Your task to perform on an android device: open app "Pinterest" (install if not already installed) Image 0: 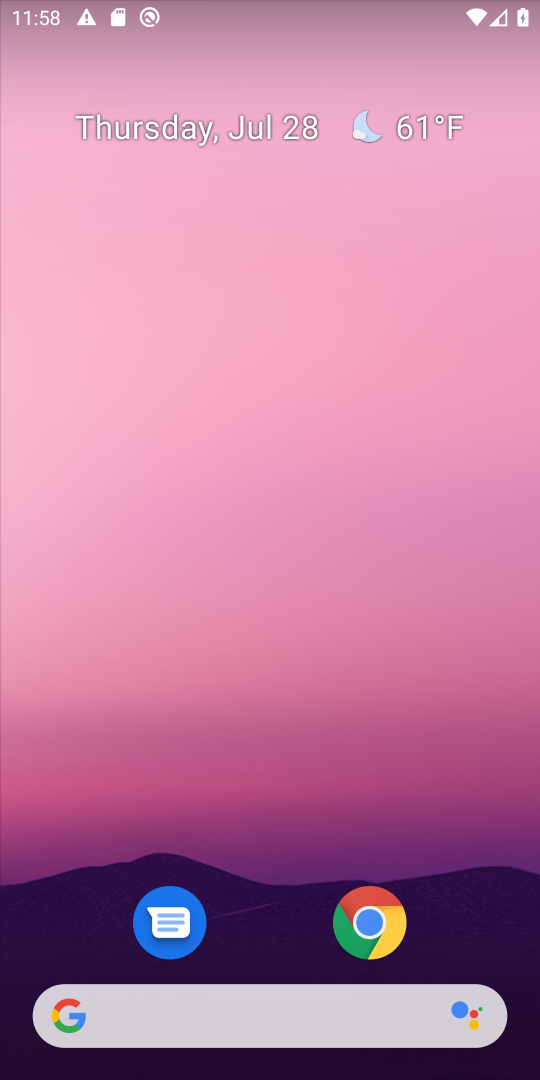
Step 0: drag from (299, 690) to (321, 105)
Your task to perform on an android device: open app "Pinterest" (install if not already installed) Image 1: 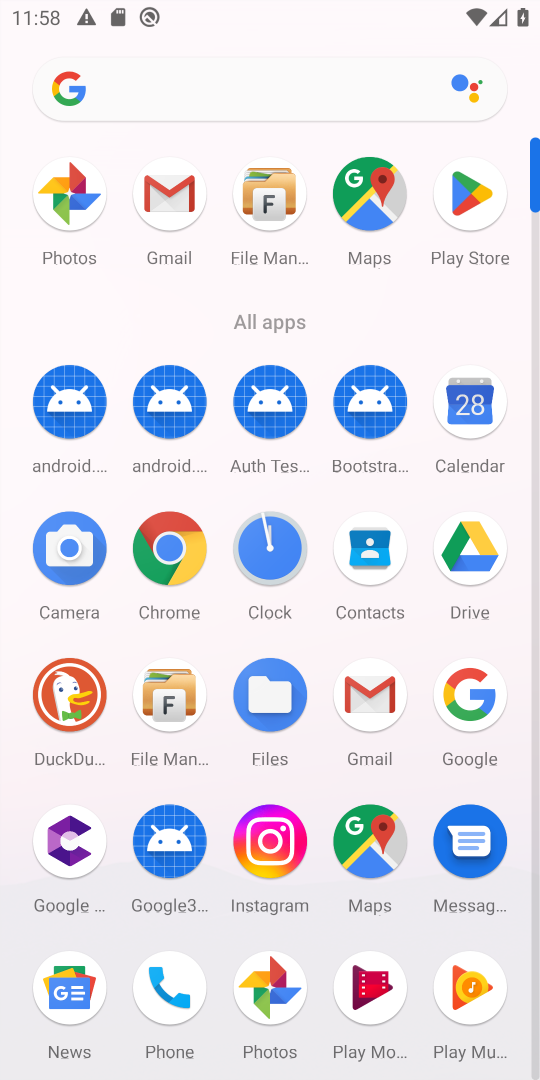
Step 1: click (471, 194)
Your task to perform on an android device: open app "Pinterest" (install if not already installed) Image 2: 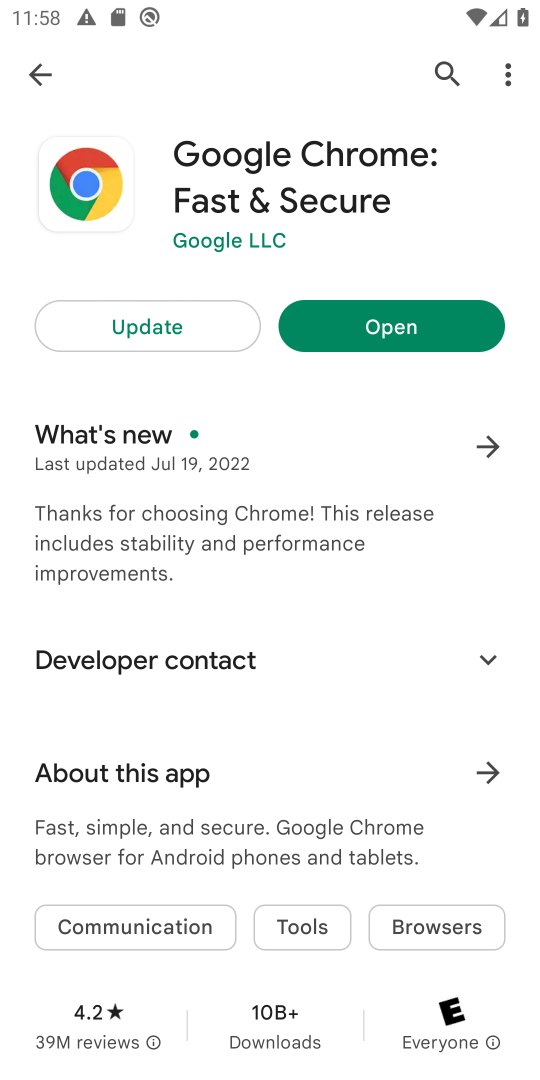
Step 2: click (422, 66)
Your task to perform on an android device: open app "Pinterest" (install if not already installed) Image 3: 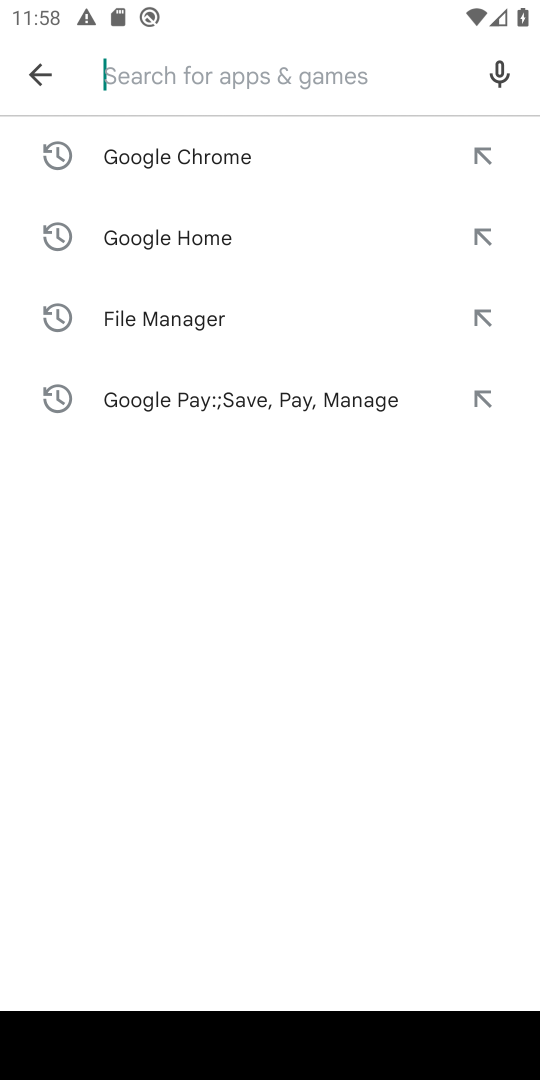
Step 3: type "Pinterest"
Your task to perform on an android device: open app "Pinterest" (install if not already installed) Image 4: 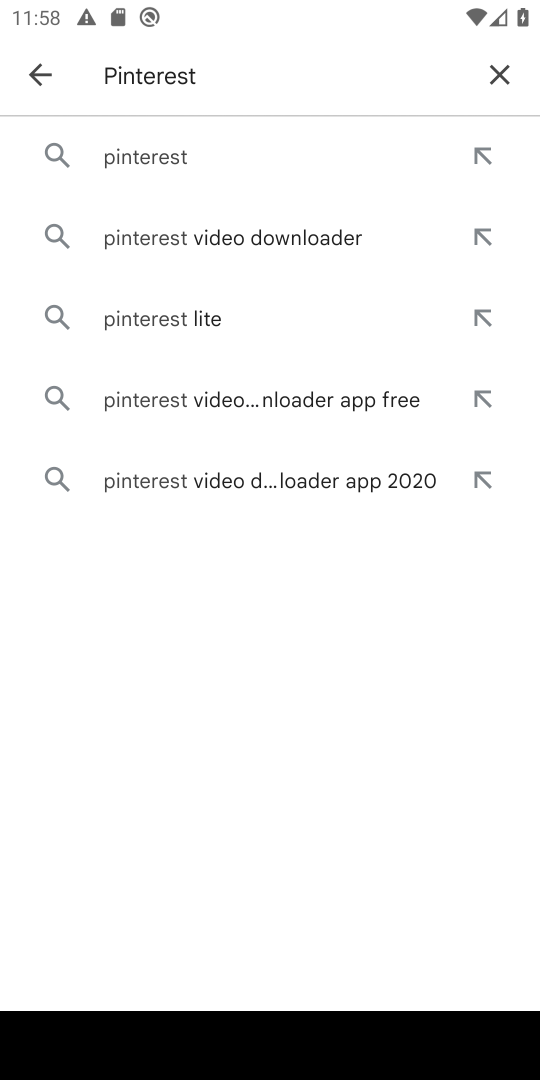
Step 4: press enter
Your task to perform on an android device: open app "Pinterest" (install if not already installed) Image 5: 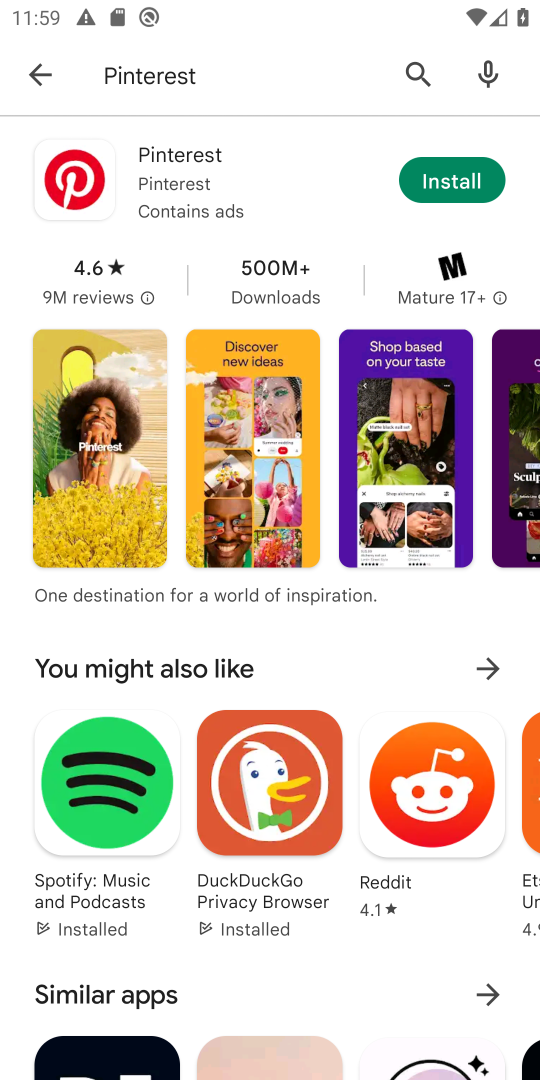
Step 5: click (434, 177)
Your task to perform on an android device: open app "Pinterest" (install if not already installed) Image 6: 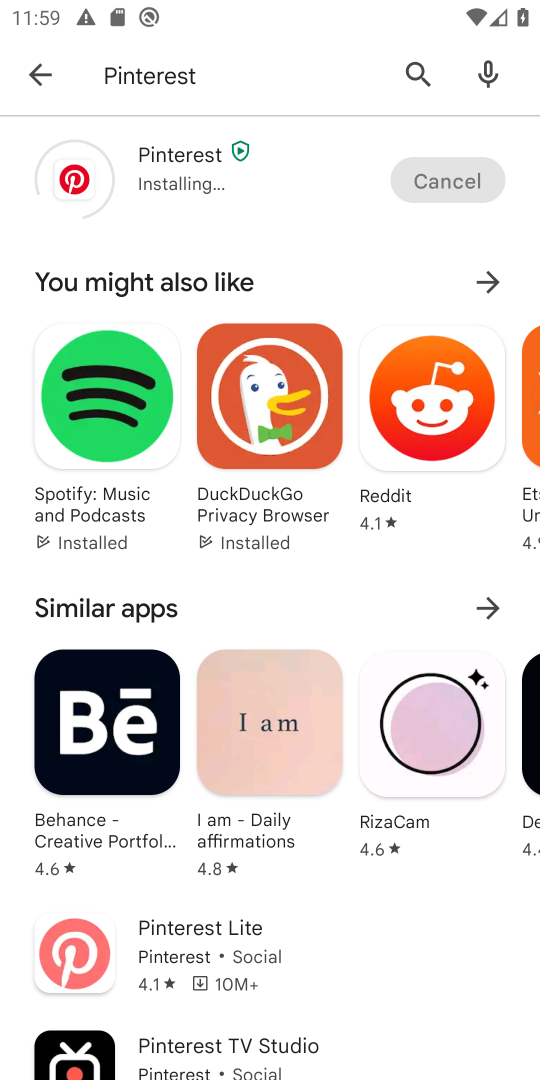
Step 6: task complete